Your task to perform on an android device: Open eBay Image 0: 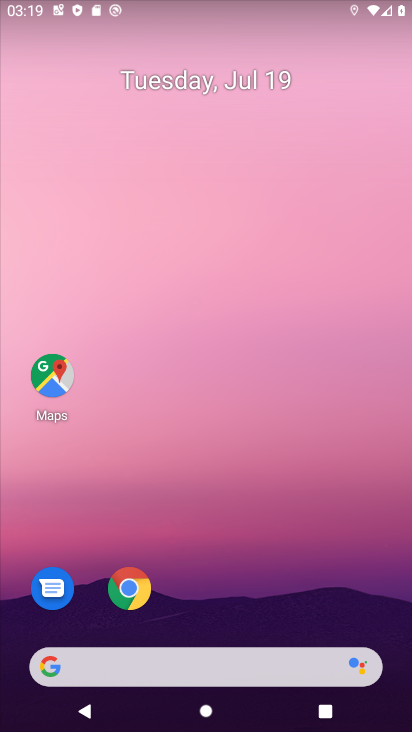
Step 0: click (131, 591)
Your task to perform on an android device: Open eBay Image 1: 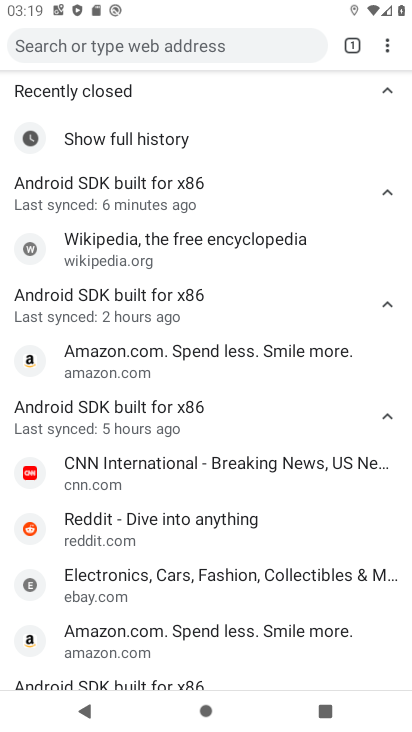
Step 1: click (389, 41)
Your task to perform on an android device: Open eBay Image 2: 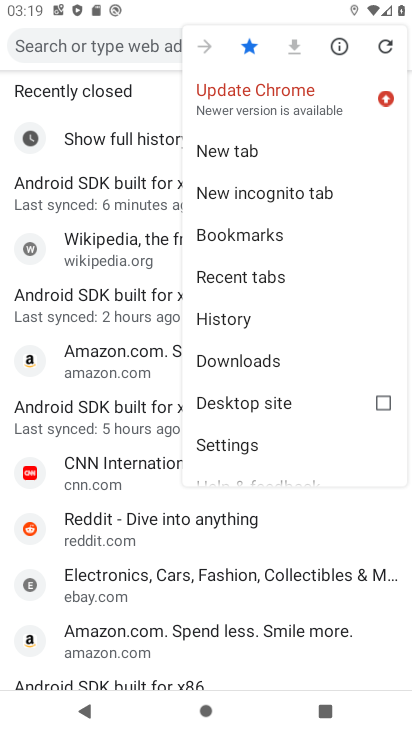
Step 2: click (240, 155)
Your task to perform on an android device: Open eBay Image 3: 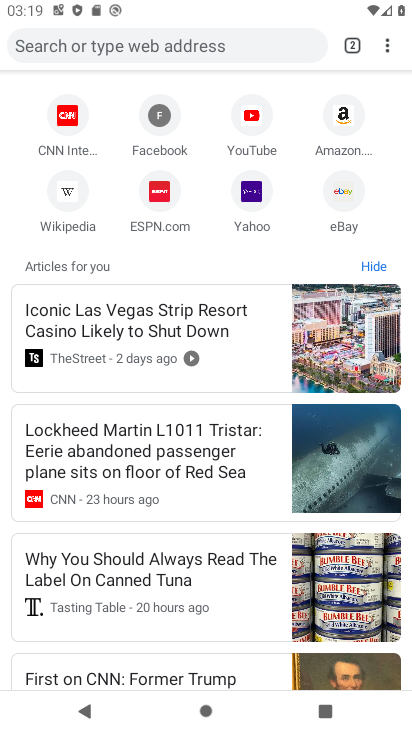
Step 3: click (347, 192)
Your task to perform on an android device: Open eBay Image 4: 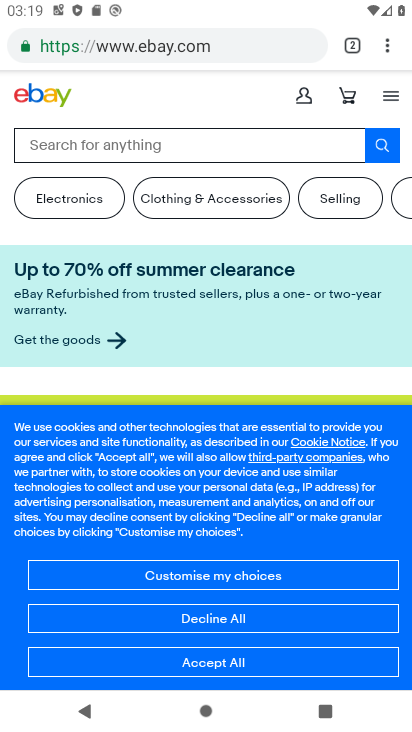
Step 4: task complete